Your task to perform on an android device: Open network settings Image 0: 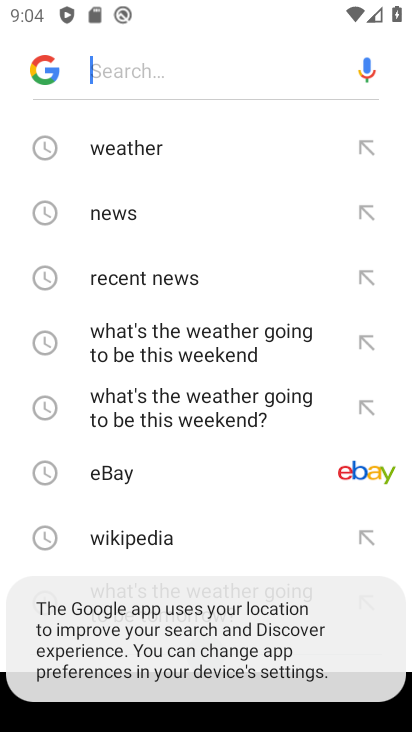
Step 0: press back button
Your task to perform on an android device: Open network settings Image 1: 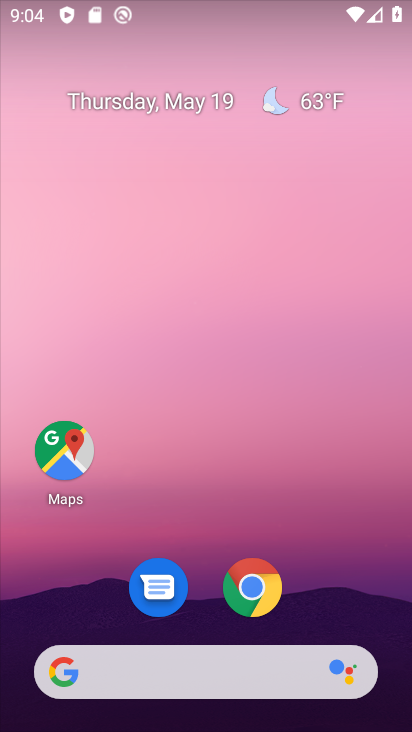
Step 1: drag from (190, 615) to (232, 16)
Your task to perform on an android device: Open network settings Image 2: 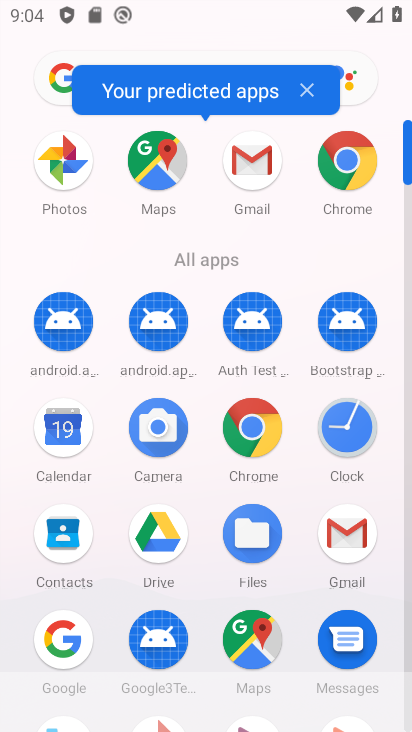
Step 2: drag from (194, 607) to (194, 29)
Your task to perform on an android device: Open network settings Image 3: 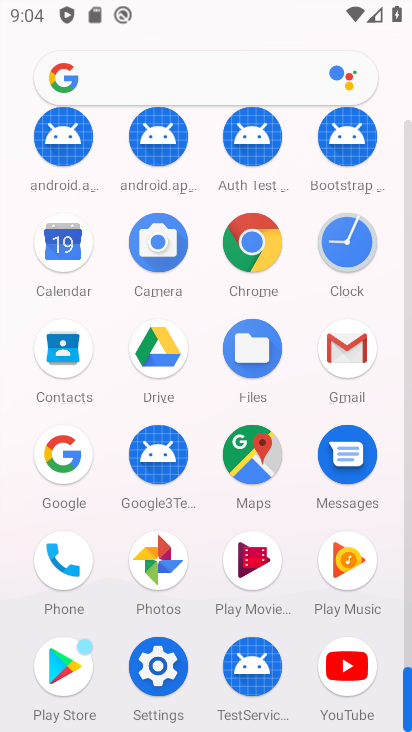
Step 3: click (164, 664)
Your task to perform on an android device: Open network settings Image 4: 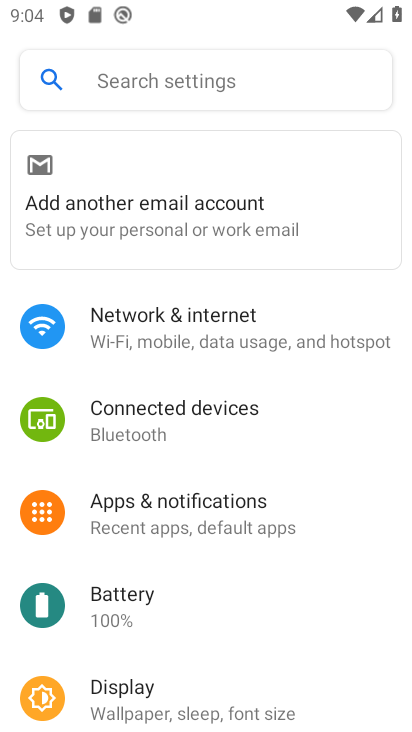
Step 4: drag from (188, 242) to (187, 129)
Your task to perform on an android device: Open network settings Image 5: 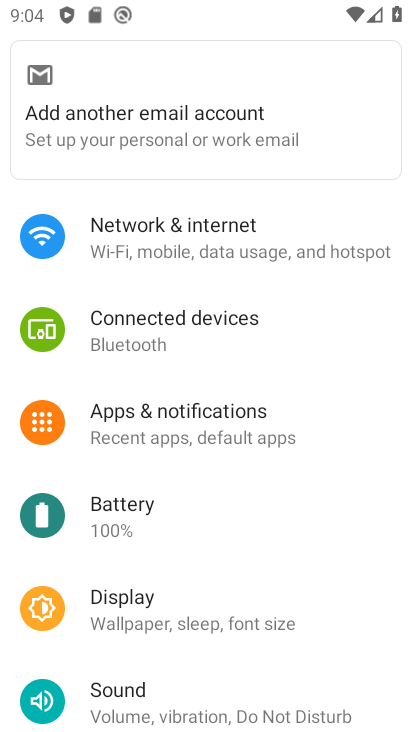
Step 5: click (170, 211)
Your task to perform on an android device: Open network settings Image 6: 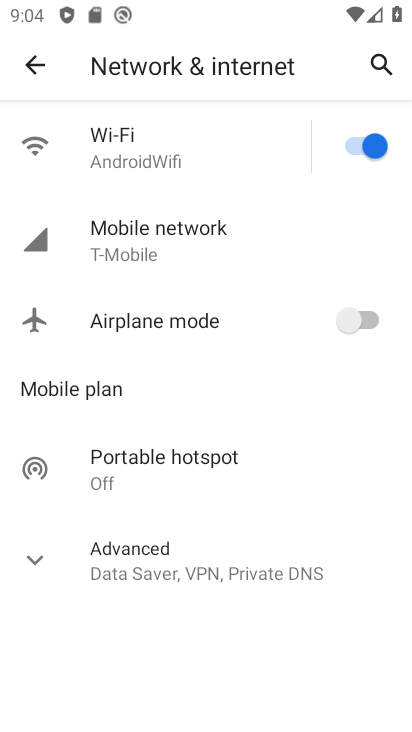
Step 6: click (160, 233)
Your task to perform on an android device: Open network settings Image 7: 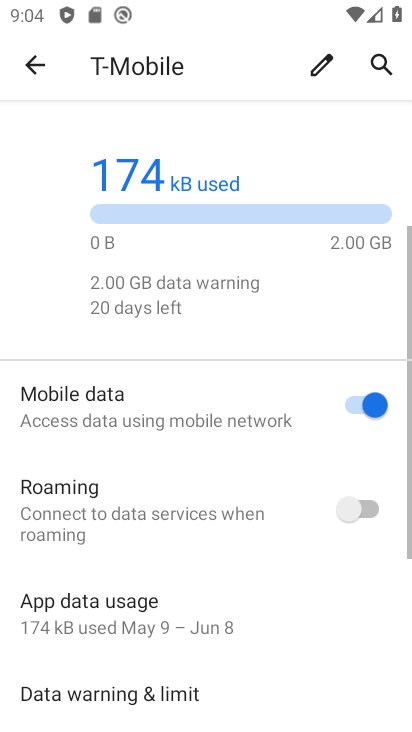
Step 7: task complete